Your task to perform on an android device: check the backup settings in the google photos Image 0: 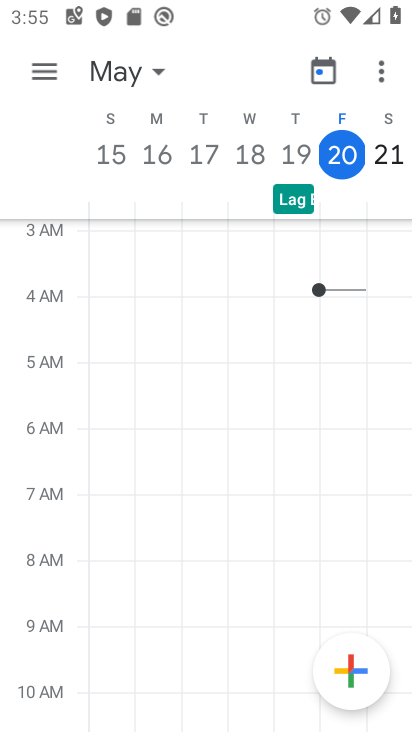
Step 0: press home button
Your task to perform on an android device: check the backup settings in the google photos Image 1: 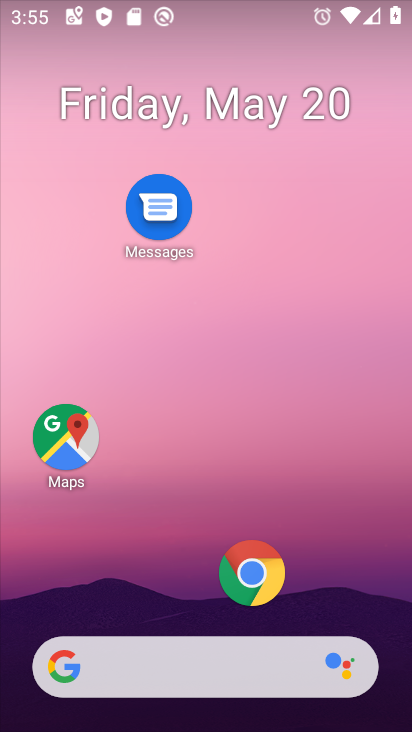
Step 1: drag from (226, 622) to (253, 0)
Your task to perform on an android device: check the backup settings in the google photos Image 2: 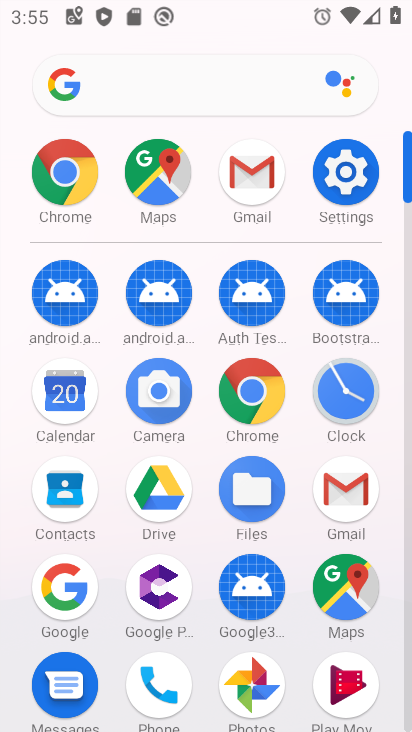
Step 2: click (255, 701)
Your task to perform on an android device: check the backup settings in the google photos Image 3: 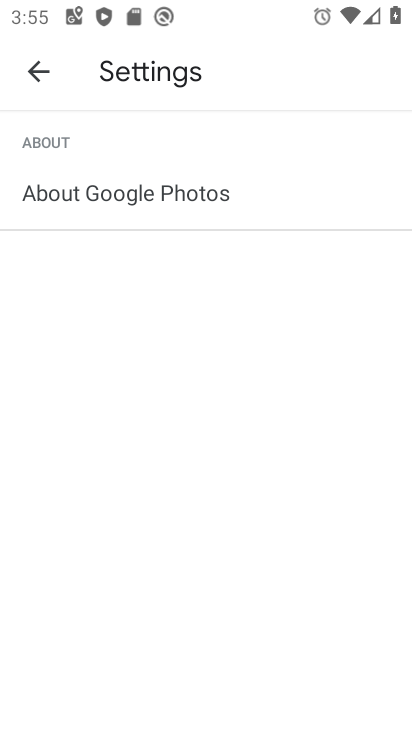
Step 3: click (23, 67)
Your task to perform on an android device: check the backup settings in the google photos Image 4: 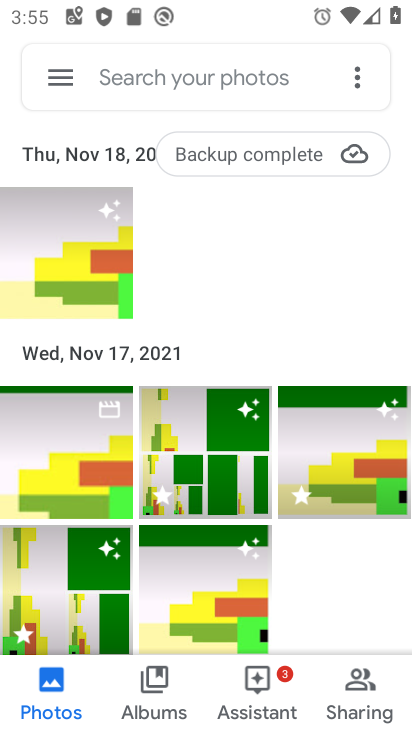
Step 4: click (59, 80)
Your task to perform on an android device: check the backup settings in the google photos Image 5: 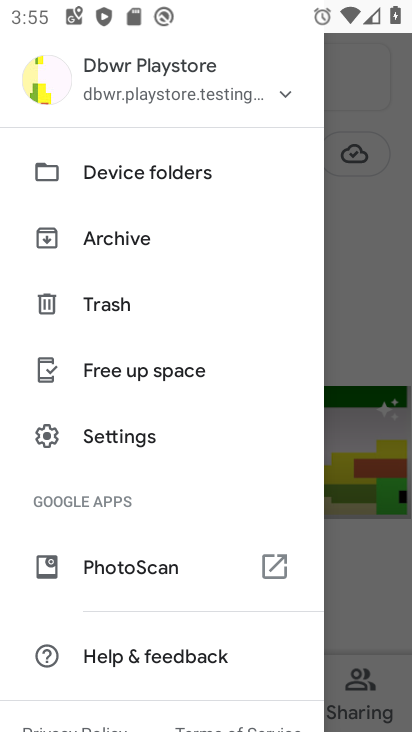
Step 5: drag from (138, 625) to (106, 348)
Your task to perform on an android device: check the backup settings in the google photos Image 6: 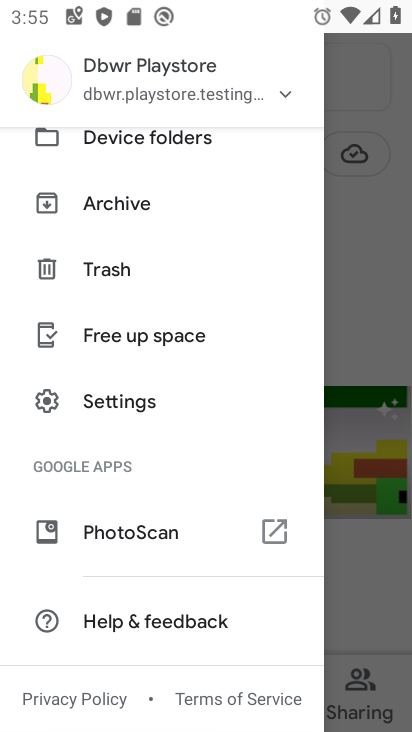
Step 6: click (143, 390)
Your task to perform on an android device: check the backup settings in the google photos Image 7: 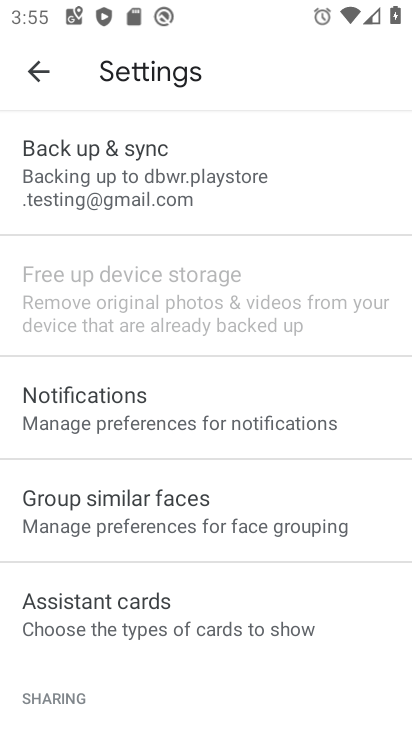
Step 7: click (137, 165)
Your task to perform on an android device: check the backup settings in the google photos Image 8: 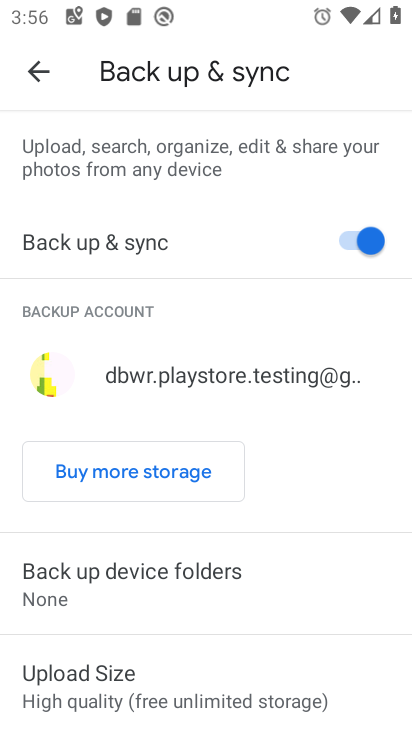
Step 8: click (180, 683)
Your task to perform on an android device: check the backup settings in the google photos Image 9: 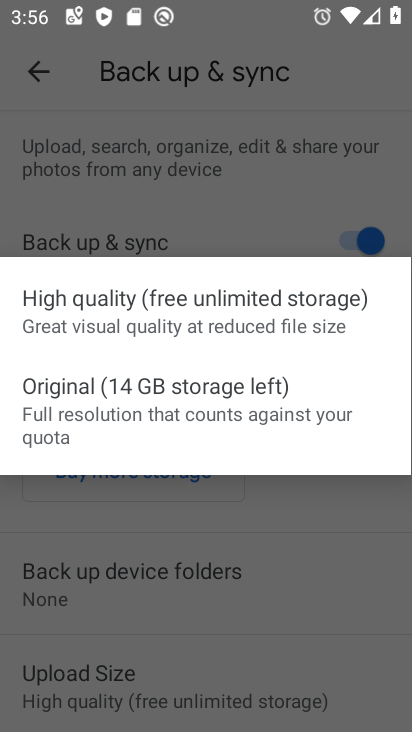
Step 9: click (279, 544)
Your task to perform on an android device: check the backup settings in the google photos Image 10: 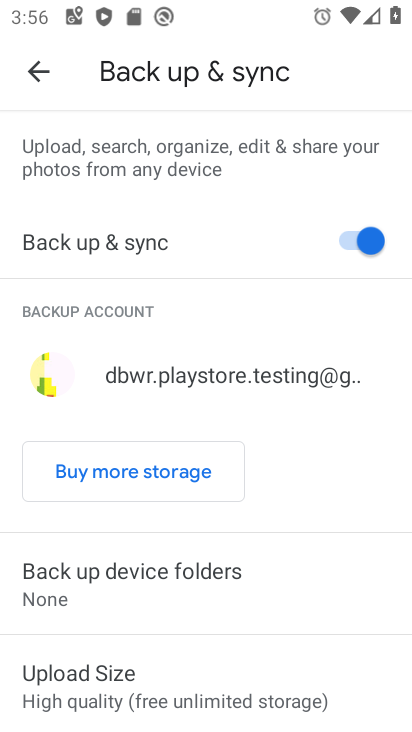
Step 10: task complete